Your task to perform on an android device: Open calendar and show me the second week of next month Image 0: 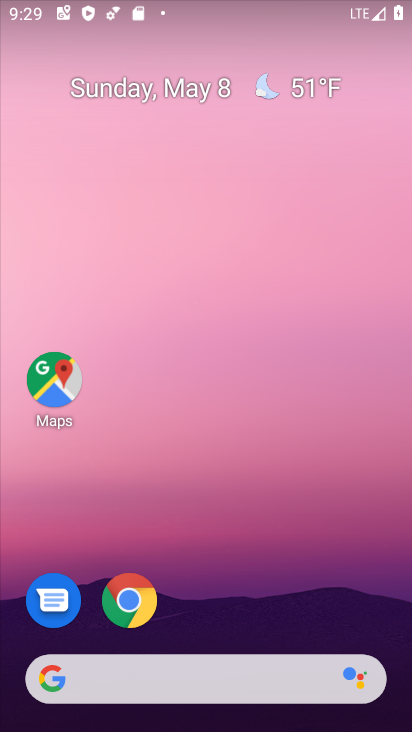
Step 0: drag from (346, 619) to (325, 19)
Your task to perform on an android device: Open calendar and show me the second week of next month Image 1: 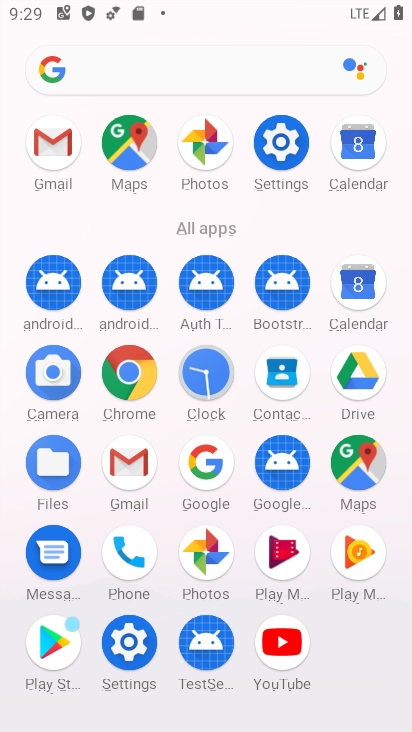
Step 1: click (352, 150)
Your task to perform on an android device: Open calendar and show me the second week of next month Image 2: 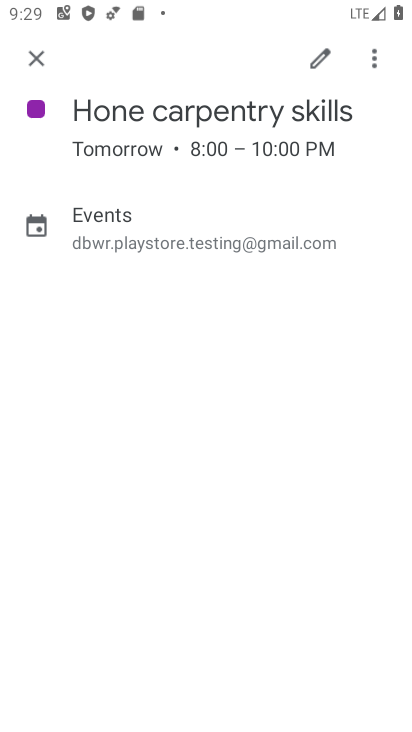
Step 2: click (28, 60)
Your task to perform on an android device: Open calendar and show me the second week of next month Image 3: 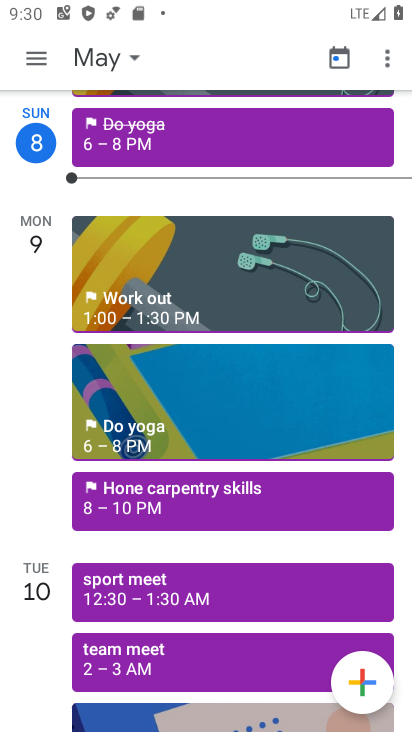
Step 3: click (131, 60)
Your task to perform on an android device: Open calendar and show me the second week of next month Image 4: 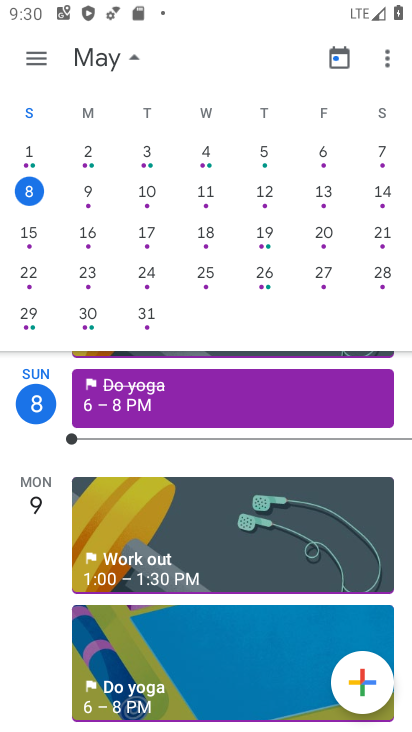
Step 4: drag from (368, 258) to (28, 526)
Your task to perform on an android device: Open calendar and show me the second week of next month Image 5: 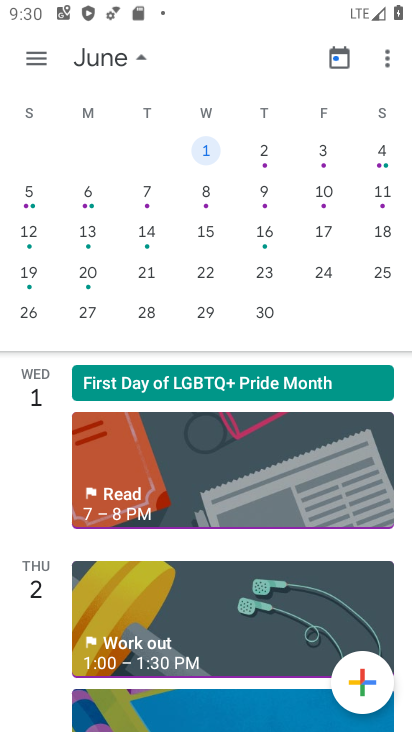
Step 5: click (30, 61)
Your task to perform on an android device: Open calendar and show me the second week of next month Image 6: 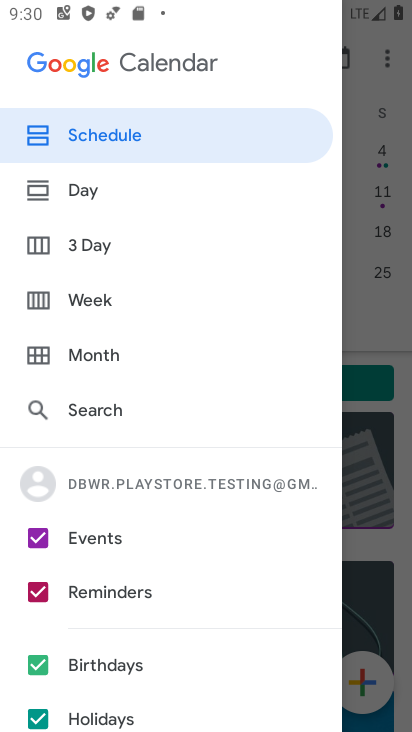
Step 6: click (79, 302)
Your task to perform on an android device: Open calendar and show me the second week of next month Image 7: 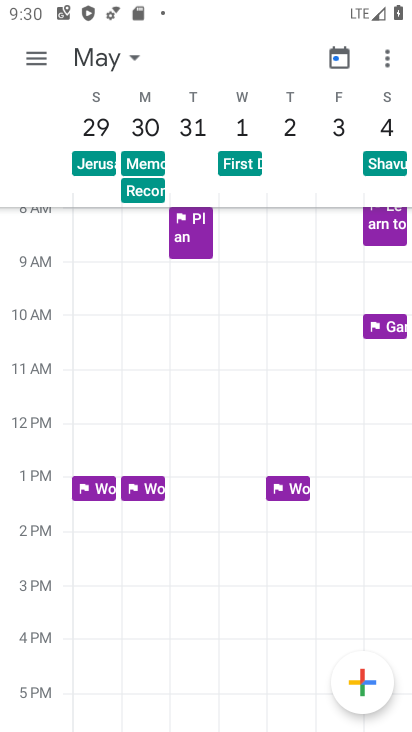
Step 7: task complete